Your task to perform on an android device: Go to Maps Image 0: 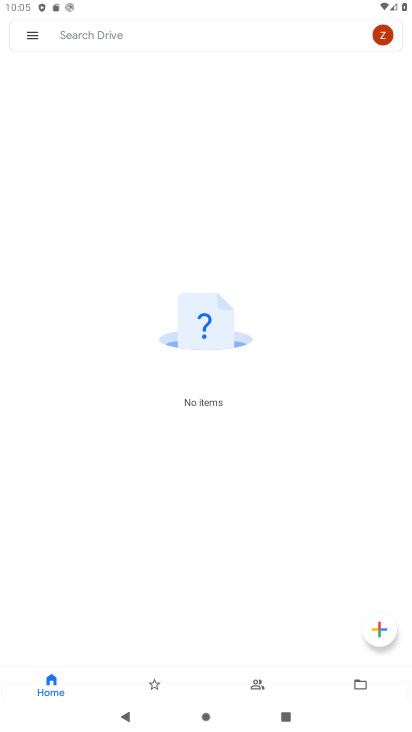
Step 0: press home button
Your task to perform on an android device: Go to Maps Image 1: 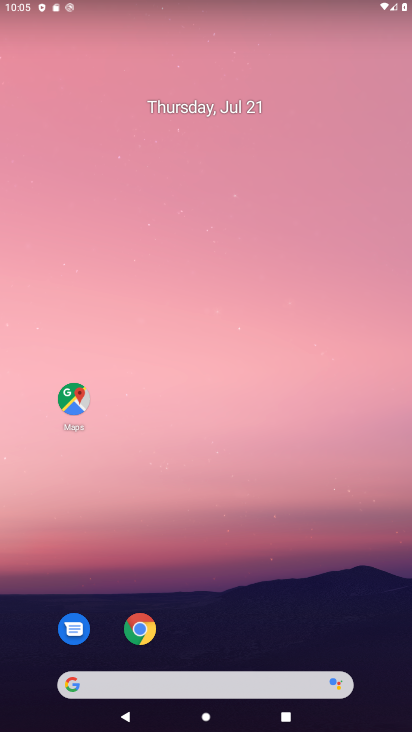
Step 1: click (70, 400)
Your task to perform on an android device: Go to Maps Image 2: 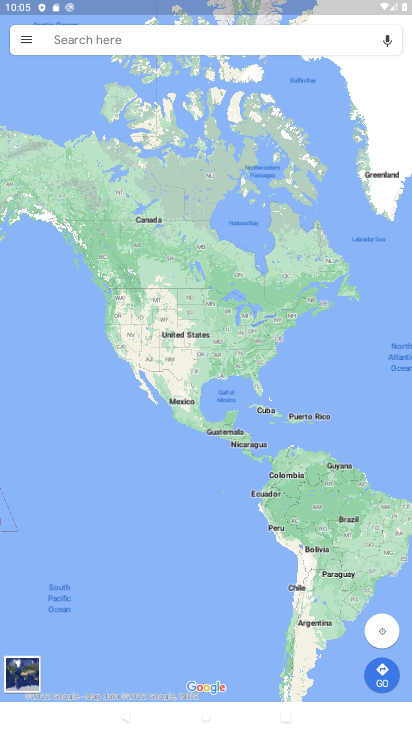
Step 2: task complete